Your task to perform on an android device: star an email in the gmail app Image 0: 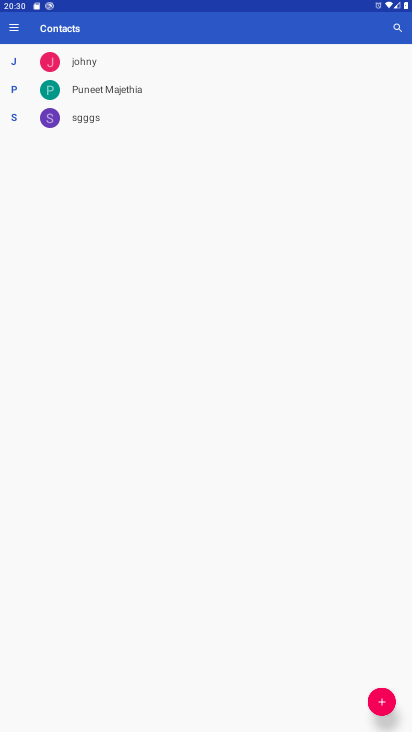
Step 0: press home button
Your task to perform on an android device: star an email in the gmail app Image 1: 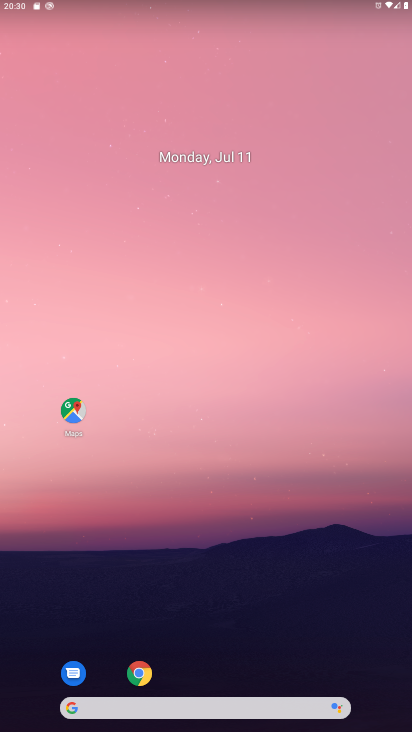
Step 1: drag from (223, 641) to (287, 58)
Your task to perform on an android device: star an email in the gmail app Image 2: 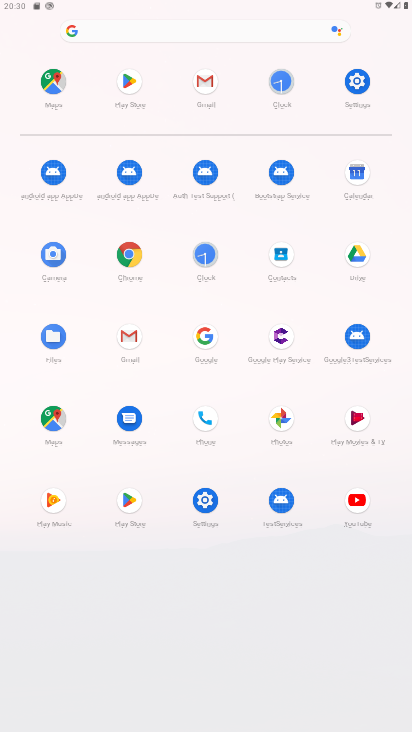
Step 2: click (206, 77)
Your task to perform on an android device: star an email in the gmail app Image 3: 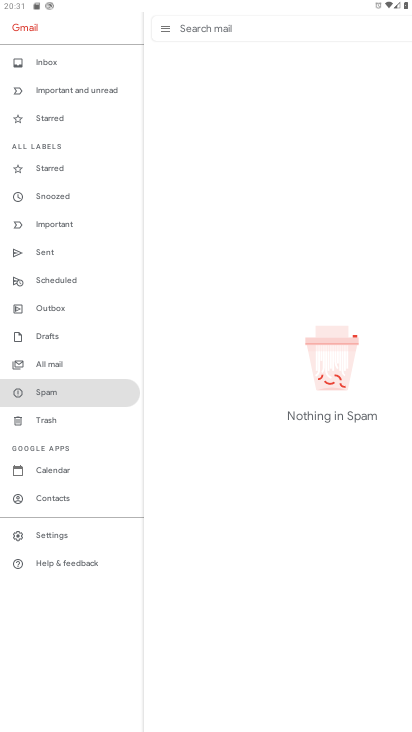
Step 3: task complete